Your task to perform on an android device: View the shopping cart on ebay. Add "duracell triple a" to the cart on ebay Image 0: 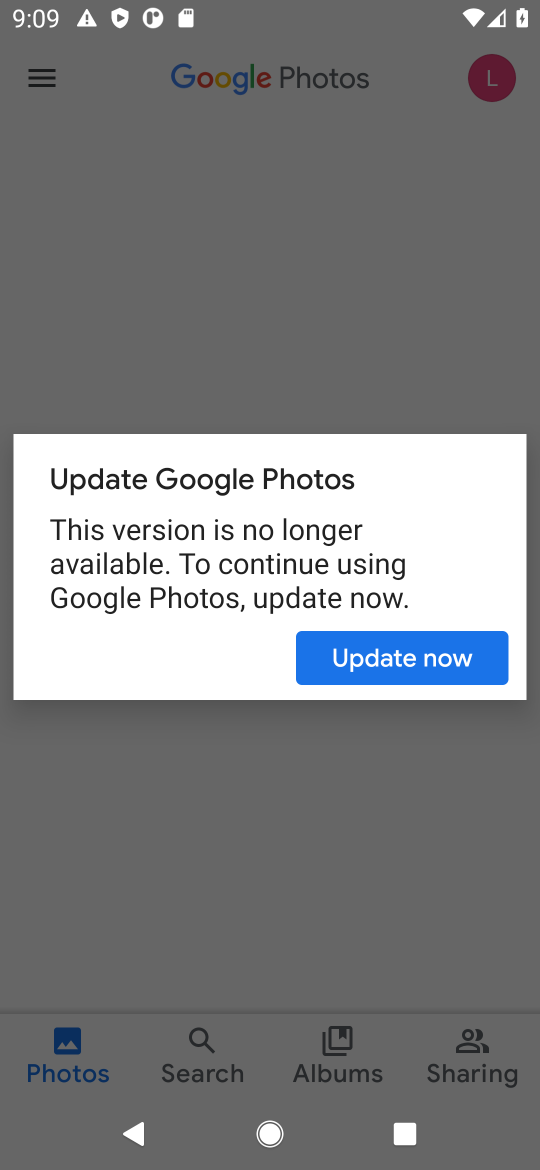
Step 0: press home button
Your task to perform on an android device: View the shopping cart on ebay. Add "duracell triple a" to the cart on ebay Image 1: 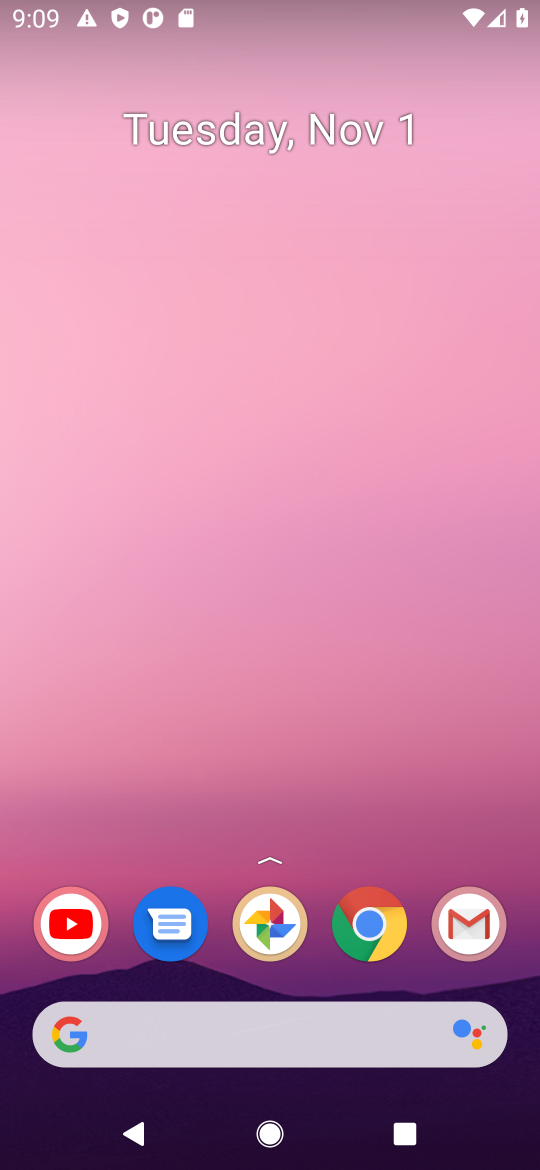
Step 1: click (373, 923)
Your task to perform on an android device: View the shopping cart on ebay. Add "duracell triple a" to the cart on ebay Image 2: 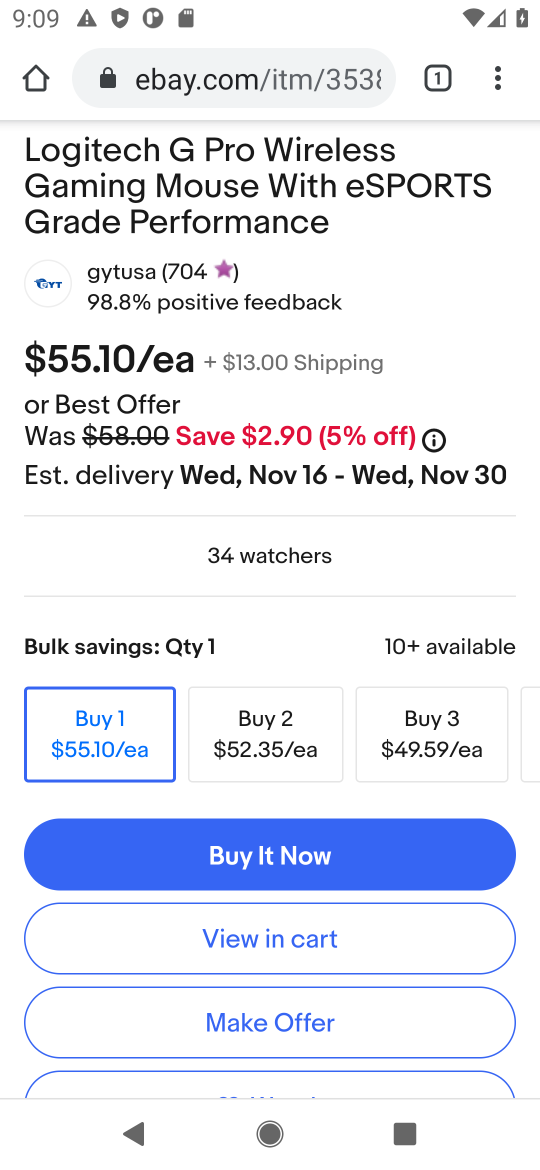
Step 2: click (313, 70)
Your task to perform on an android device: View the shopping cart on ebay. Add "duracell triple a" to the cart on ebay Image 3: 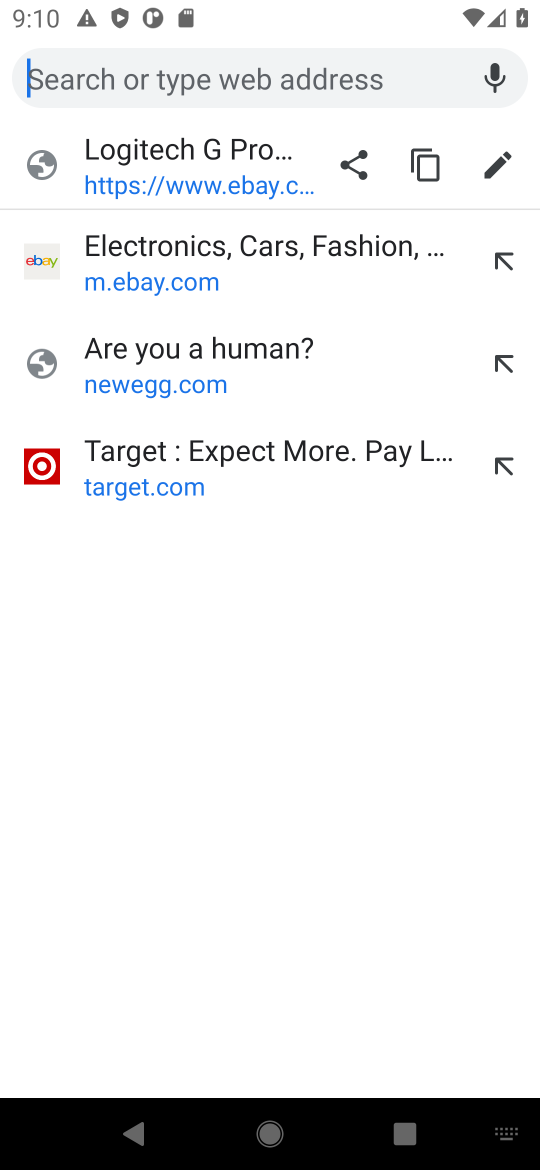
Step 3: click (322, 272)
Your task to perform on an android device: View the shopping cart on ebay. Add "duracell triple a" to the cart on ebay Image 4: 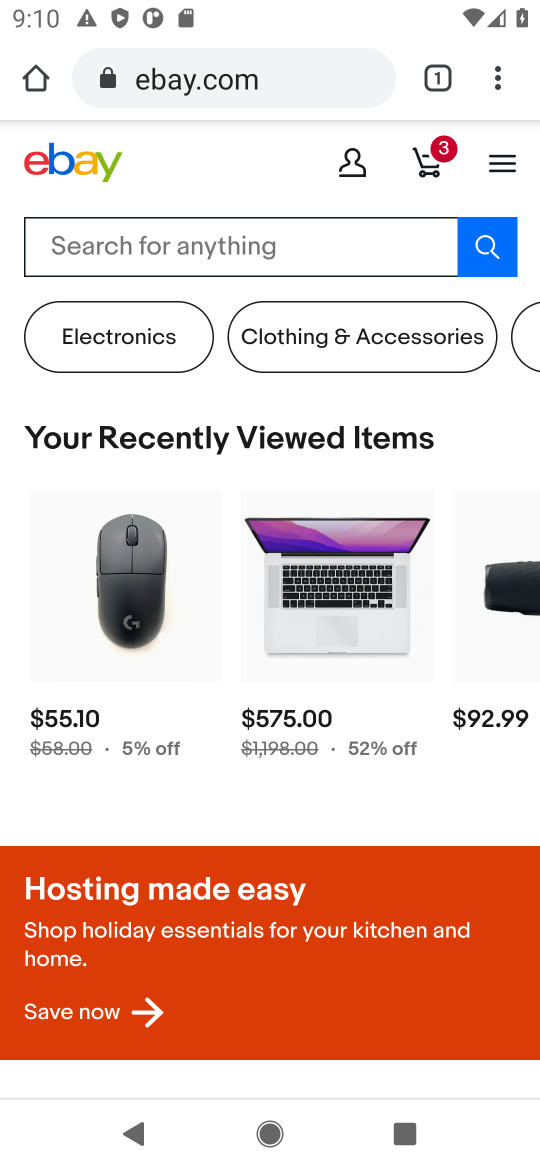
Step 4: click (434, 157)
Your task to perform on an android device: View the shopping cart on ebay. Add "duracell triple a" to the cart on ebay Image 5: 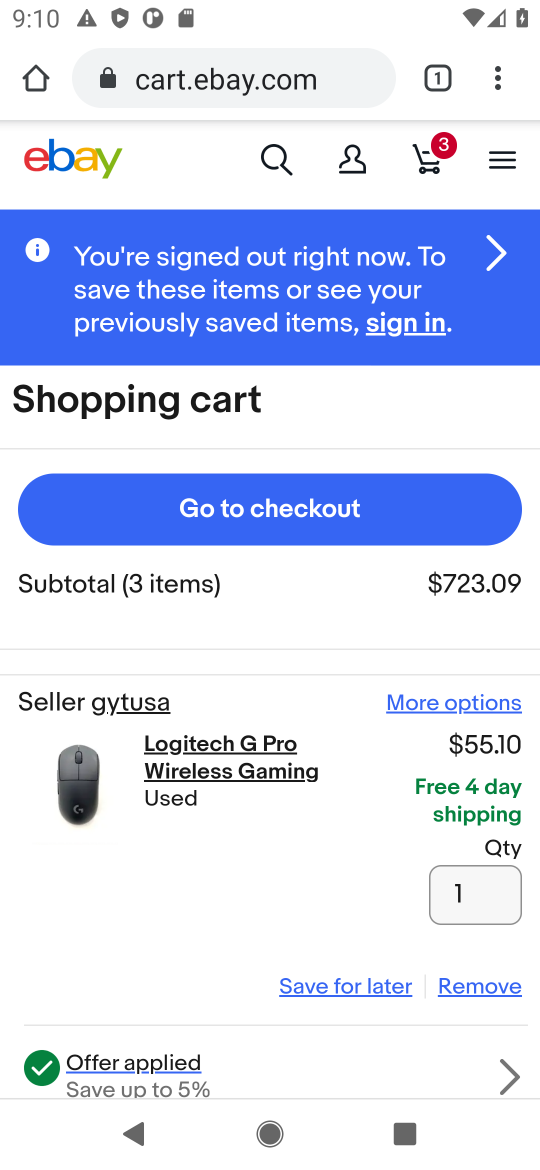
Step 5: drag from (303, 663) to (284, 399)
Your task to perform on an android device: View the shopping cart on ebay. Add "duracell triple a" to the cart on ebay Image 6: 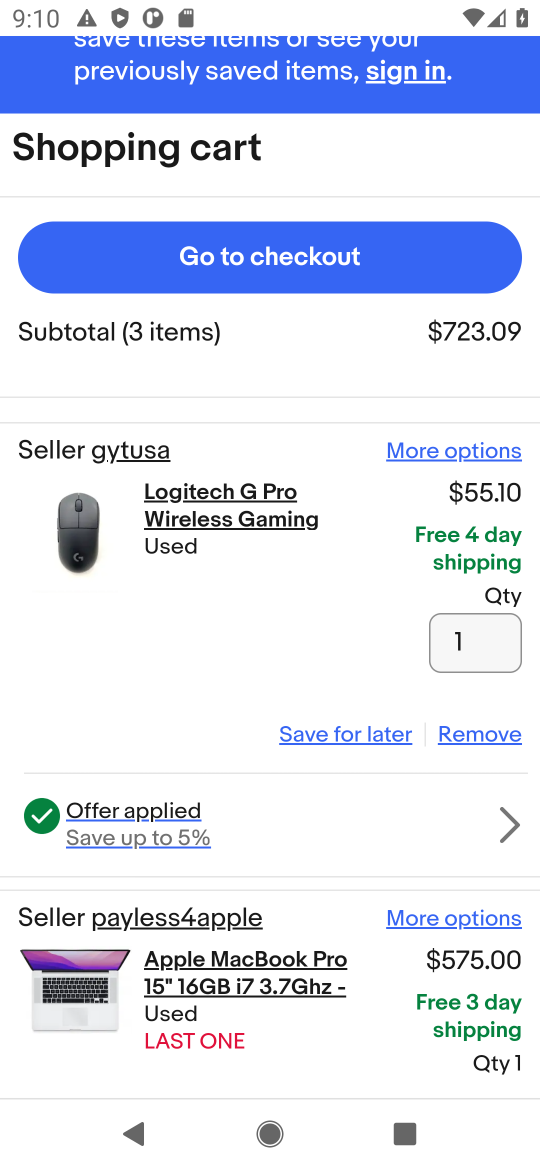
Step 6: drag from (284, 399) to (264, 959)
Your task to perform on an android device: View the shopping cart on ebay. Add "duracell triple a" to the cart on ebay Image 7: 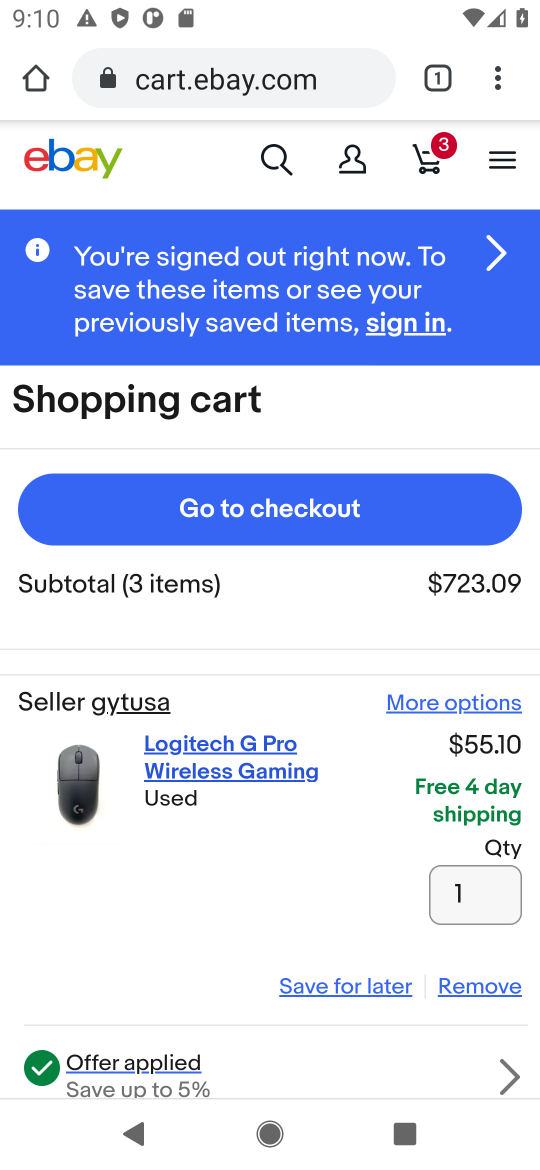
Step 7: click (269, 161)
Your task to perform on an android device: View the shopping cart on ebay. Add "duracell triple a" to the cart on ebay Image 8: 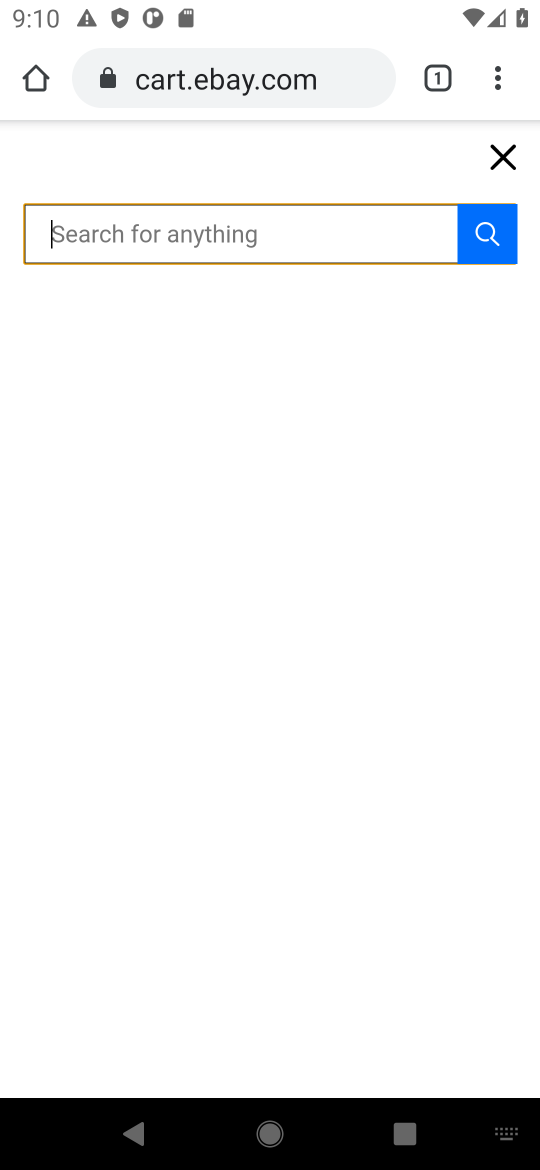
Step 8: type "duracell triple a"
Your task to perform on an android device: View the shopping cart on ebay. Add "duracell triple a" to the cart on ebay Image 9: 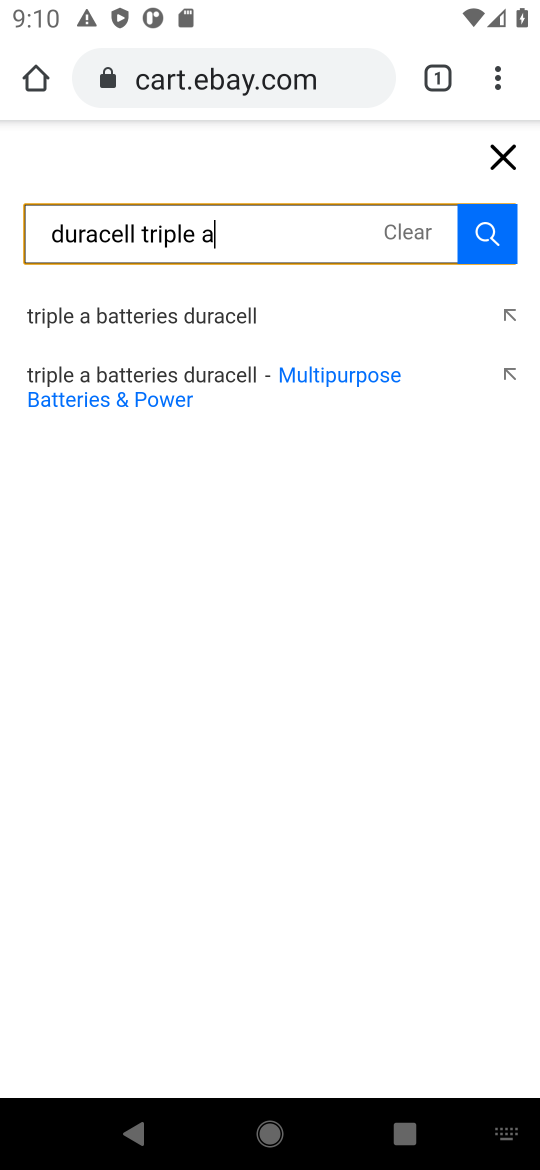
Step 9: click (236, 312)
Your task to perform on an android device: View the shopping cart on ebay. Add "duracell triple a" to the cart on ebay Image 10: 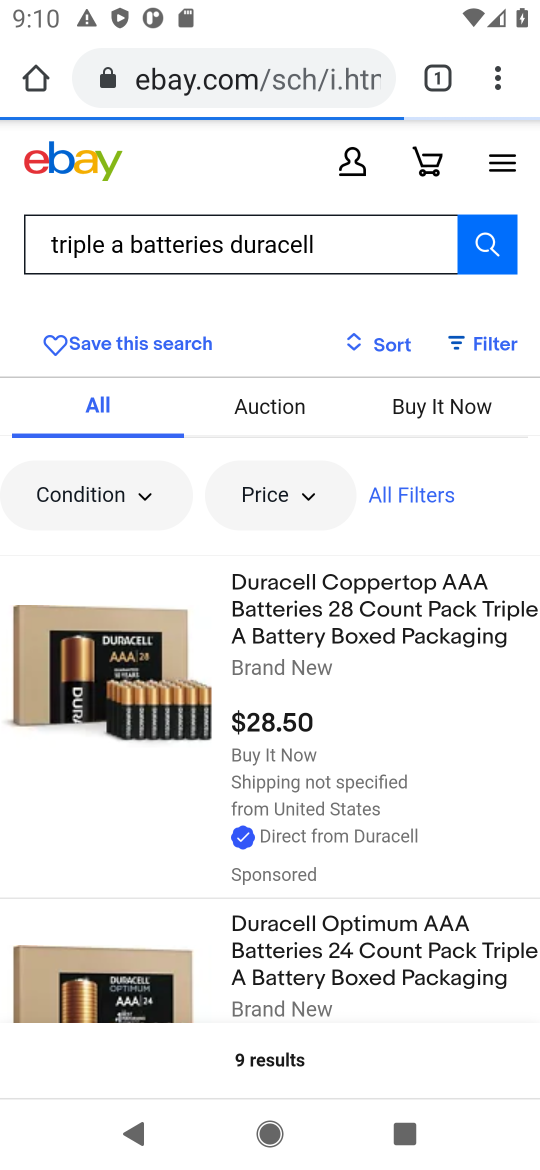
Step 10: press back button
Your task to perform on an android device: View the shopping cart on ebay. Add "duracell triple a" to the cart on ebay Image 11: 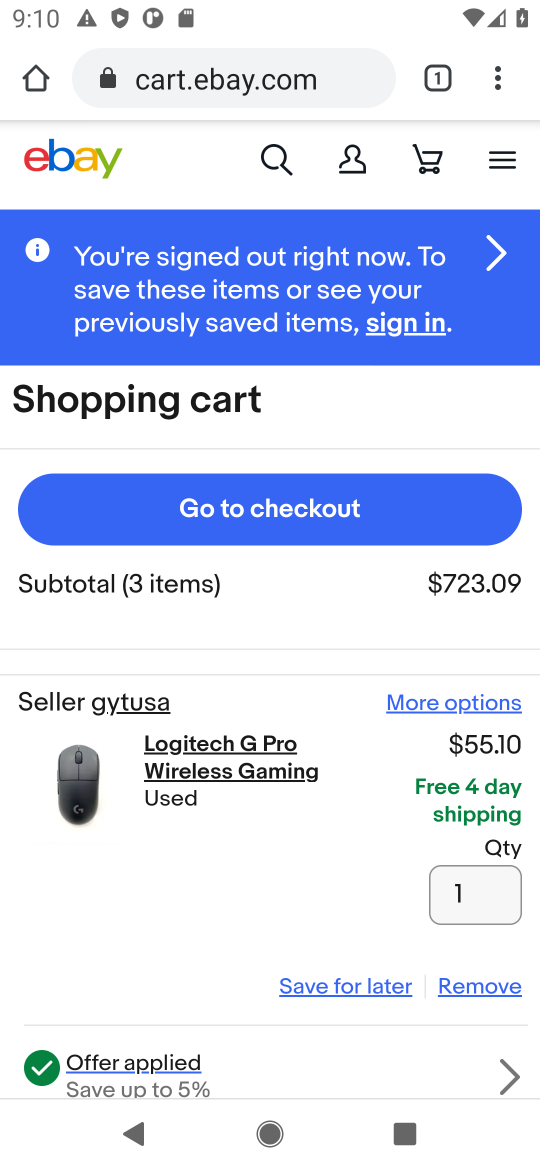
Step 11: click (278, 161)
Your task to perform on an android device: View the shopping cart on ebay. Add "duracell triple a" to the cart on ebay Image 12: 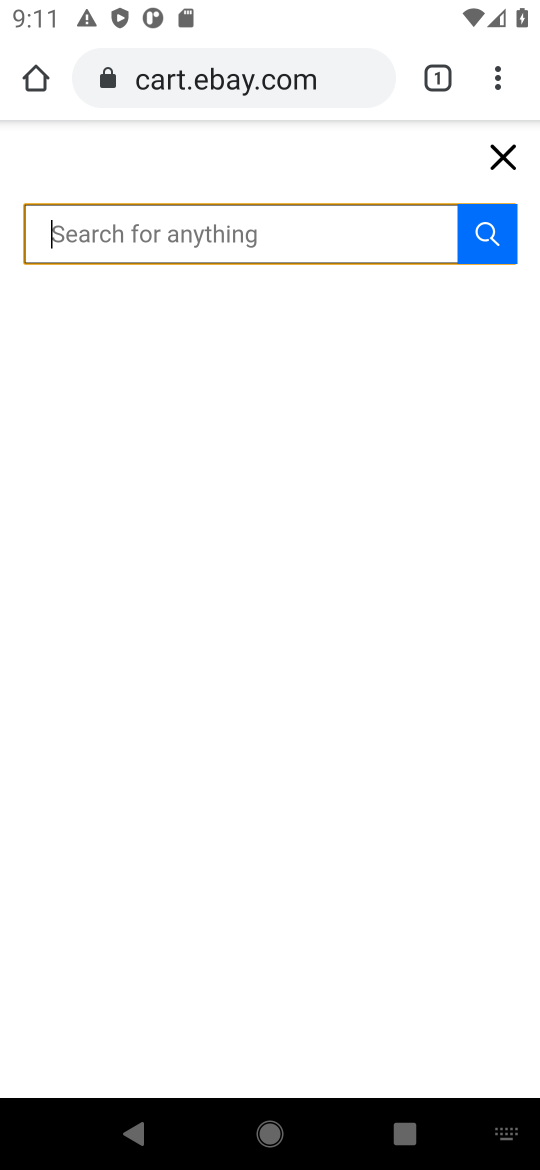
Step 12: type "duracell triple a"
Your task to perform on an android device: View the shopping cart on ebay. Add "duracell triple a" to the cart on ebay Image 13: 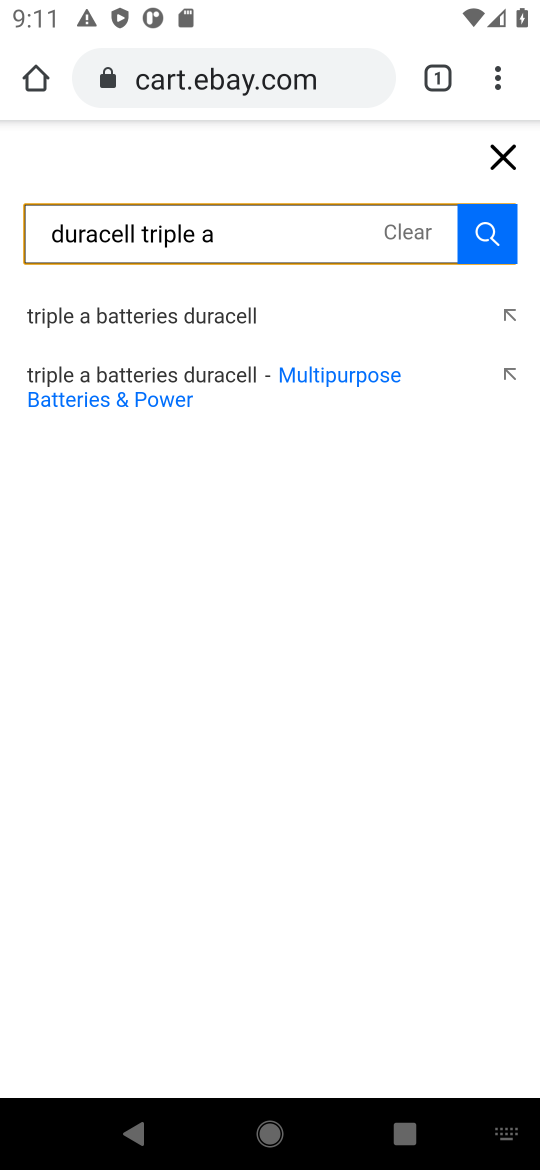
Step 13: click (482, 239)
Your task to perform on an android device: View the shopping cart on ebay. Add "duracell triple a" to the cart on ebay Image 14: 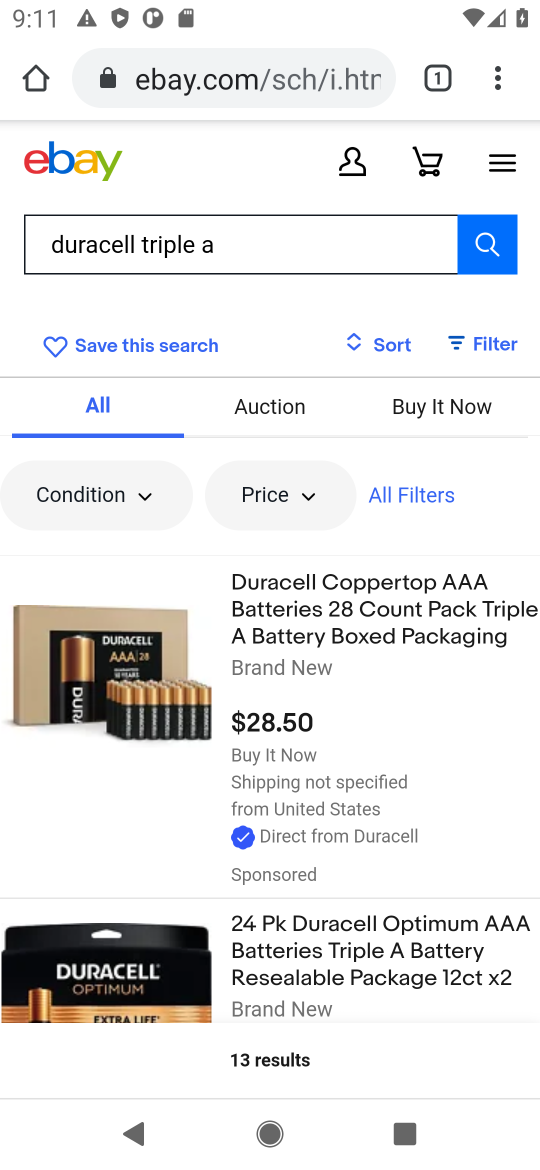
Step 14: click (343, 609)
Your task to perform on an android device: View the shopping cart on ebay. Add "duracell triple a" to the cart on ebay Image 15: 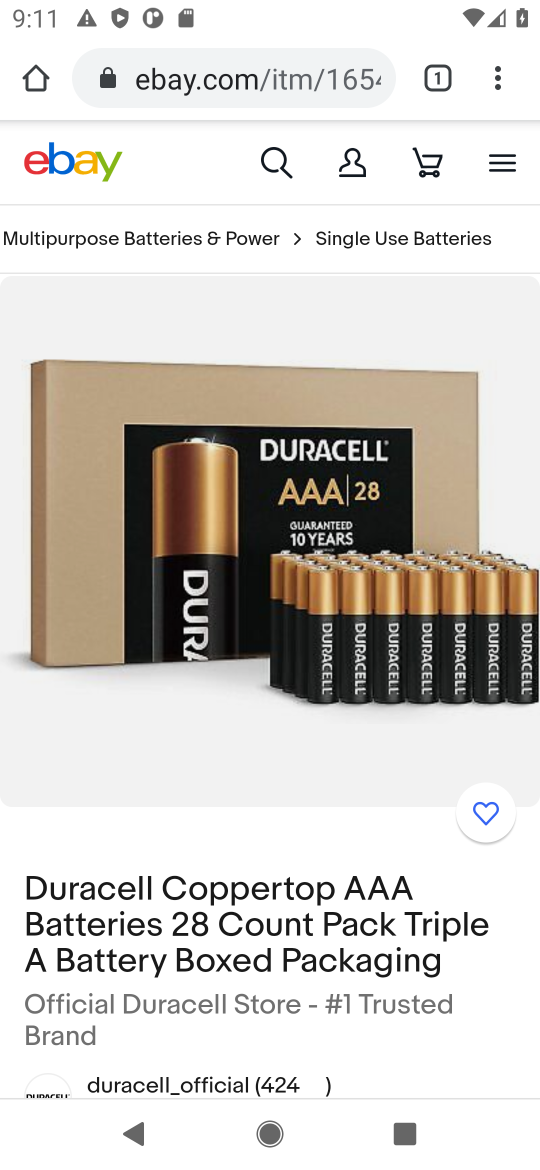
Step 15: drag from (417, 880) to (310, 388)
Your task to perform on an android device: View the shopping cart on ebay. Add "duracell triple a" to the cart on ebay Image 16: 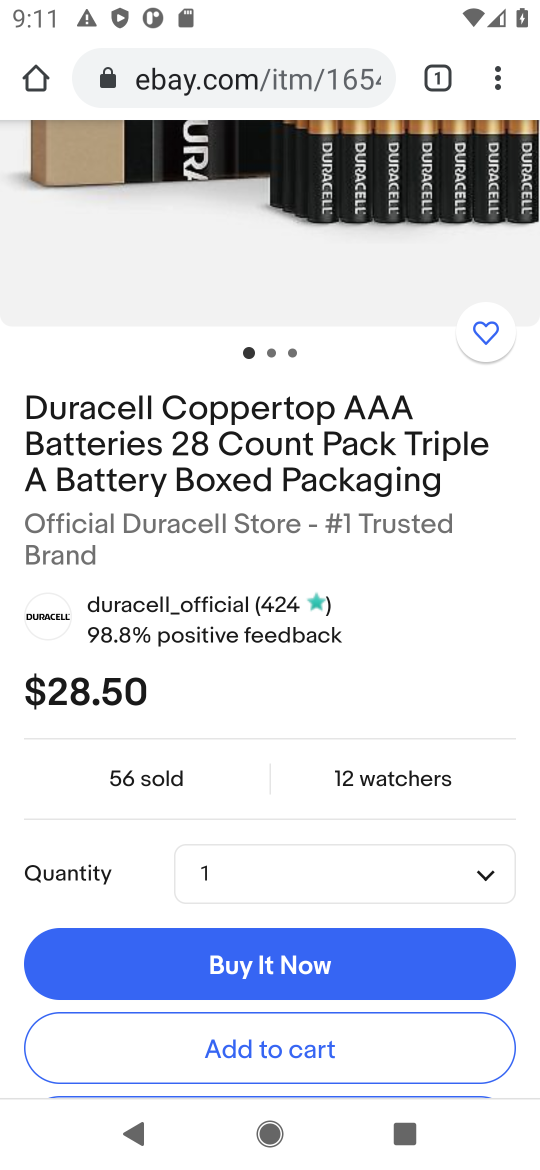
Step 16: click (269, 1055)
Your task to perform on an android device: View the shopping cart on ebay. Add "duracell triple a" to the cart on ebay Image 17: 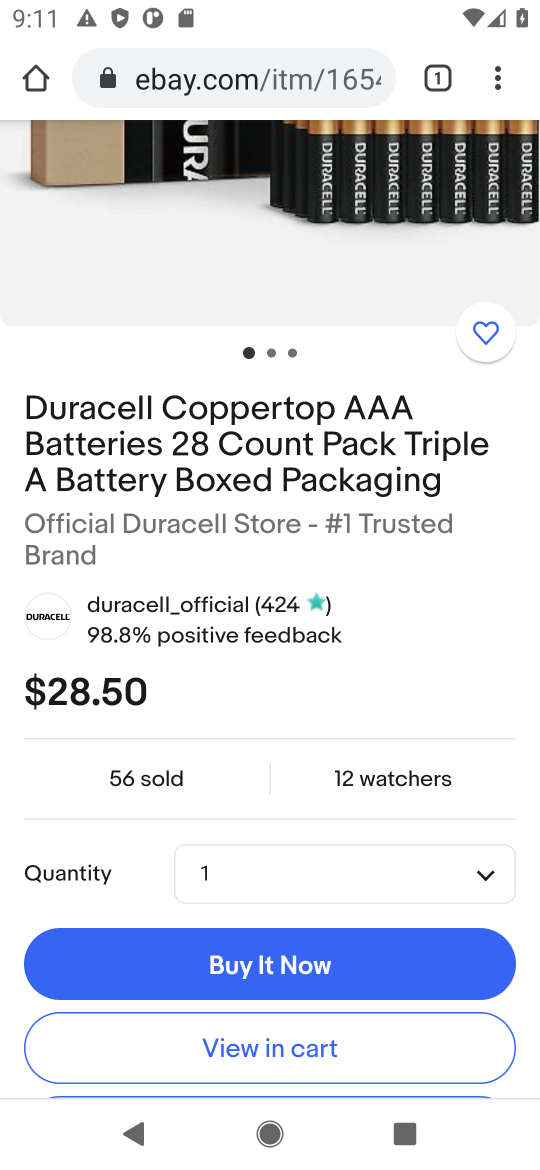
Step 17: task complete